Your task to perform on an android device: toggle airplane mode Image 0: 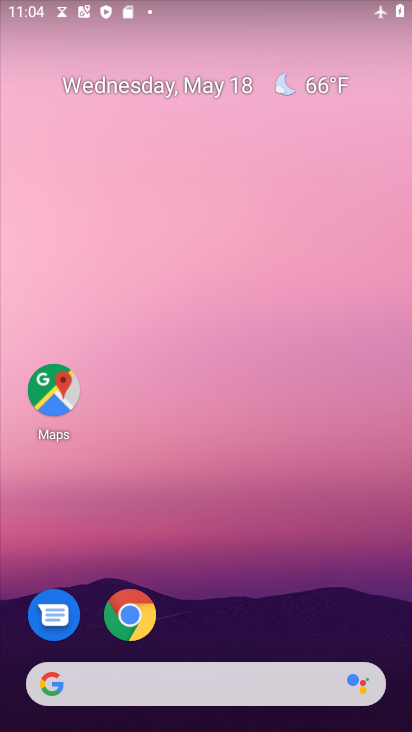
Step 0: drag from (261, 87) to (261, 18)
Your task to perform on an android device: toggle airplane mode Image 1: 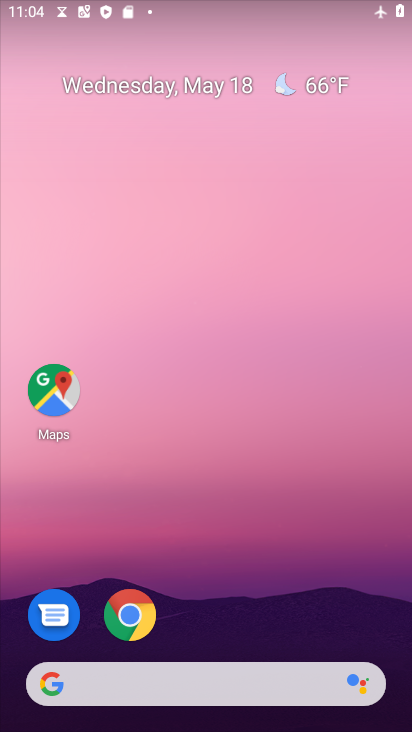
Step 1: drag from (208, 541) to (195, 0)
Your task to perform on an android device: toggle airplane mode Image 2: 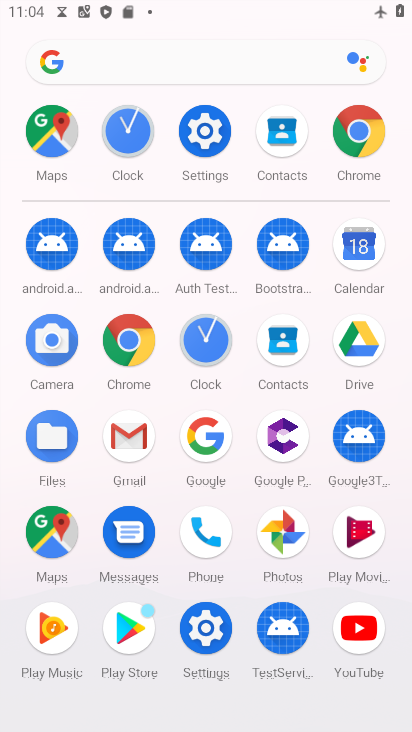
Step 2: drag from (13, 550) to (14, 243)
Your task to perform on an android device: toggle airplane mode Image 3: 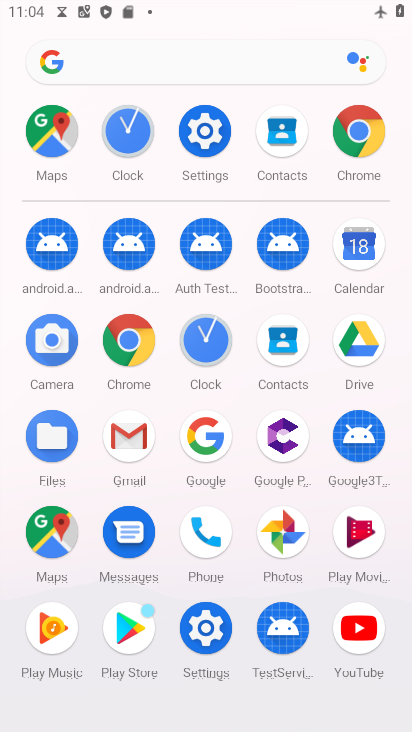
Step 3: click (206, 625)
Your task to perform on an android device: toggle airplane mode Image 4: 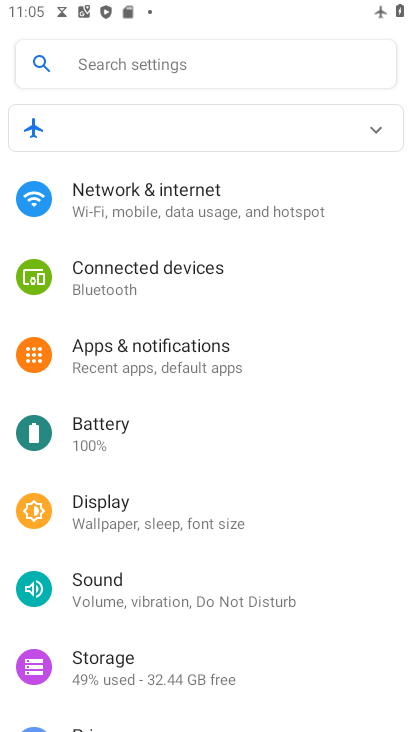
Step 4: click (222, 205)
Your task to perform on an android device: toggle airplane mode Image 5: 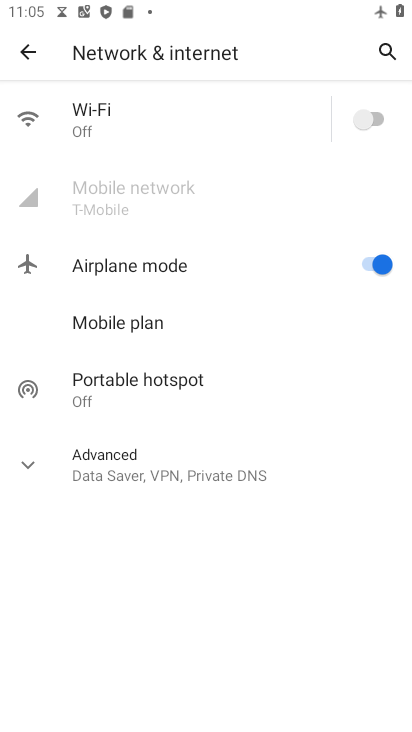
Step 5: click (19, 466)
Your task to perform on an android device: toggle airplane mode Image 6: 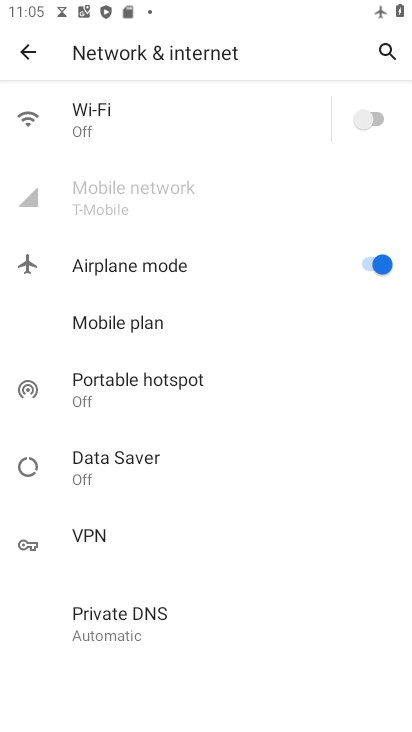
Step 6: click (362, 256)
Your task to perform on an android device: toggle airplane mode Image 7: 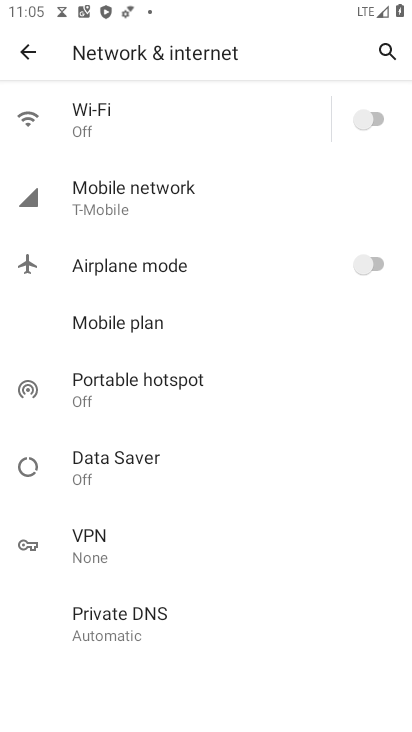
Step 7: task complete